Your task to perform on an android device: check battery use Image 0: 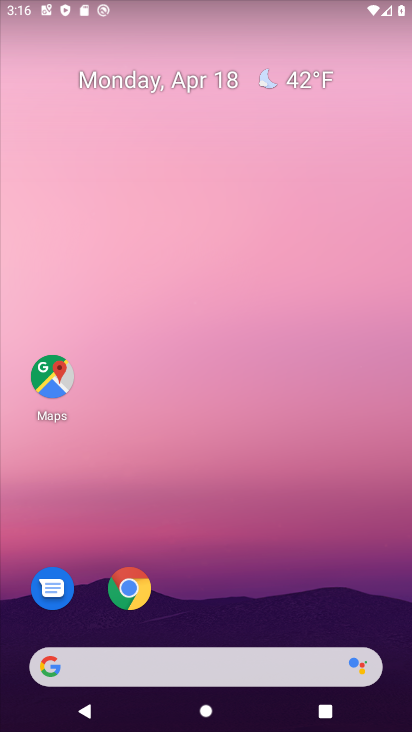
Step 0: drag from (302, 7) to (62, 721)
Your task to perform on an android device: check battery use Image 1: 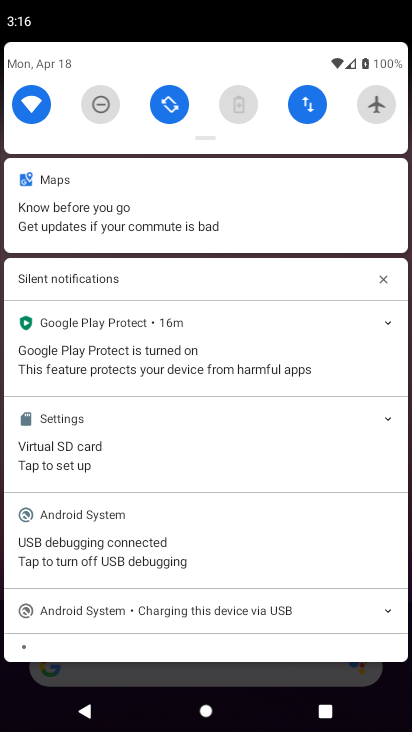
Step 1: drag from (211, 70) to (229, 721)
Your task to perform on an android device: check battery use Image 2: 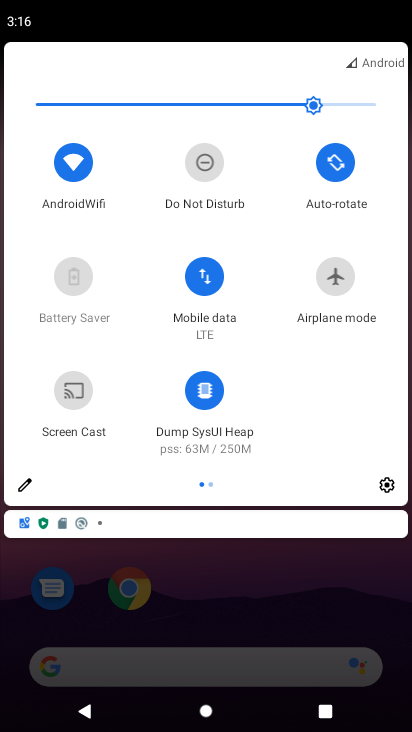
Step 2: click (389, 492)
Your task to perform on an android device: check battery use Image 3: 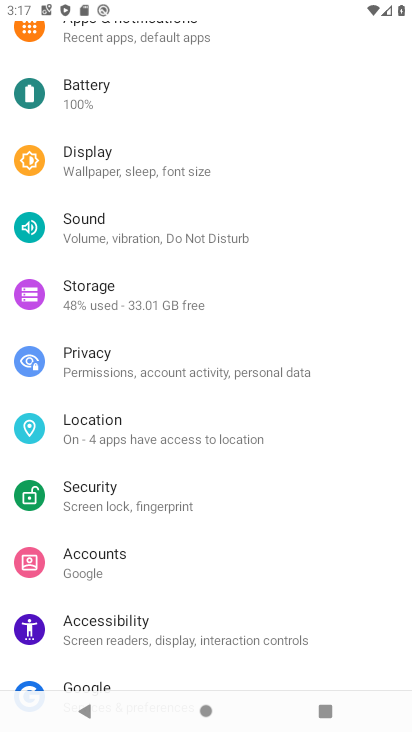
Step 3: click (185, 102)
Your task to perform on an android device: check battery use Image 4: 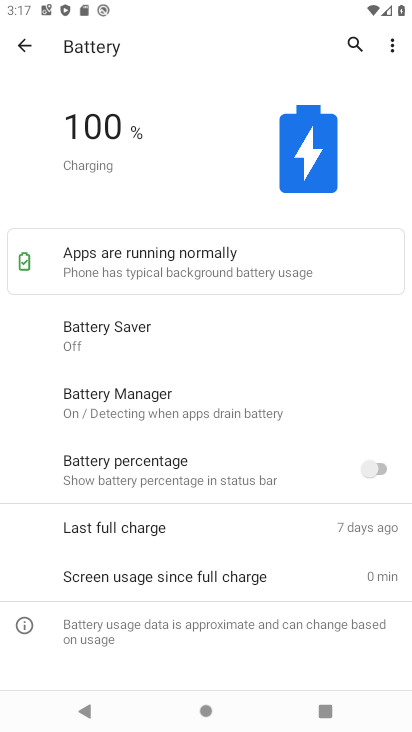
Step 4: click (393, 48)
Your task to perform on an android device: check battery use Image 5: 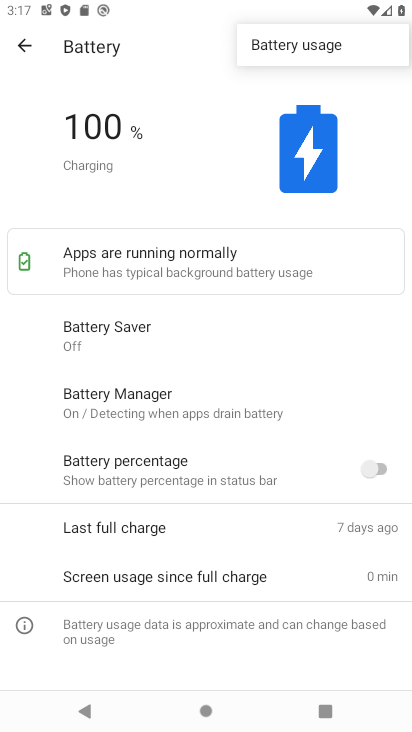
Step 5: click (361, 47)
Your task to perform on an android device: check battery use Image 6: 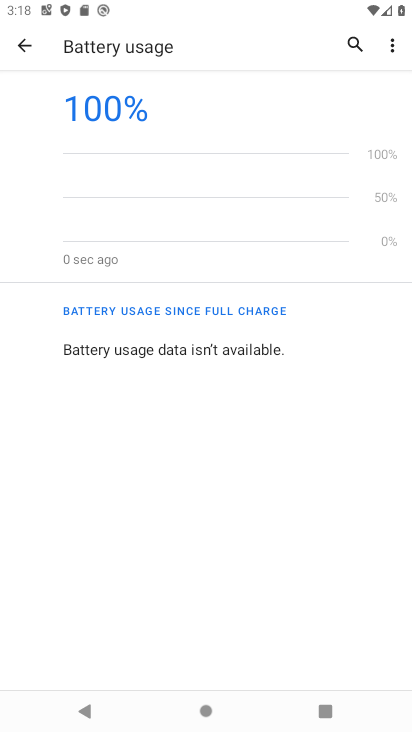
Step 6: task complete